Your task to perform on an android device: turn off location history Image 0: 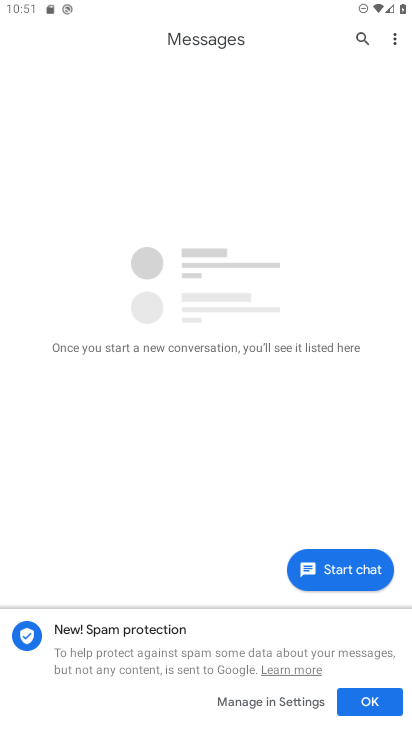
Step 0: press home button
Your task to perform on an android device: turn off location history Image 1: 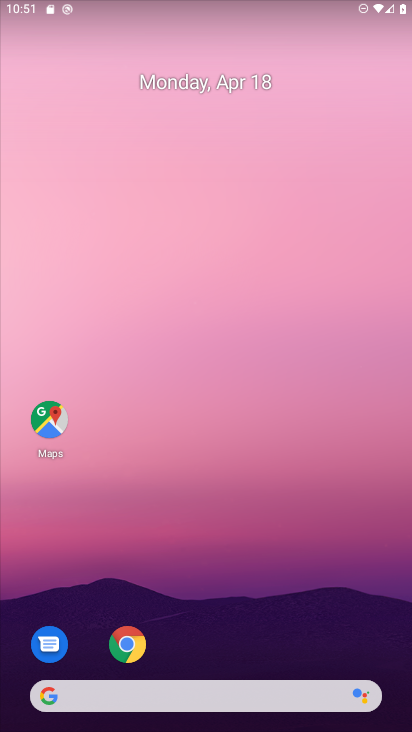
Step 1: drag from (198, 645) to (263, 87)
Your task to perform on an android device: turn off location history Image 2: 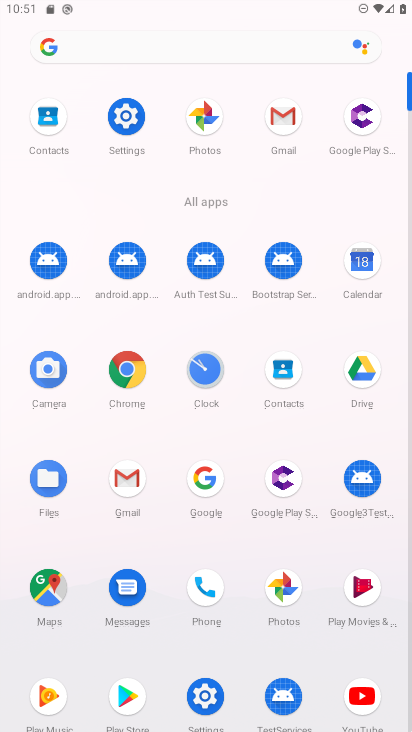
Step 2: click (199, 710)
Your task to perform on an android device: turn off location history Image 3: 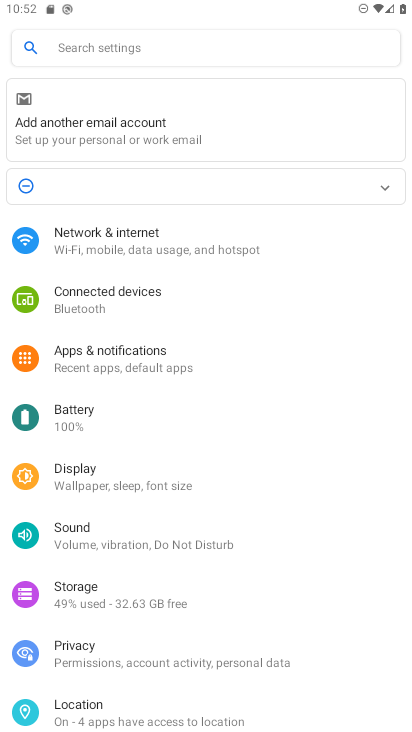
Step 3: click (118, 708)
Your task to perform on an android device: turn off location history Image 4: 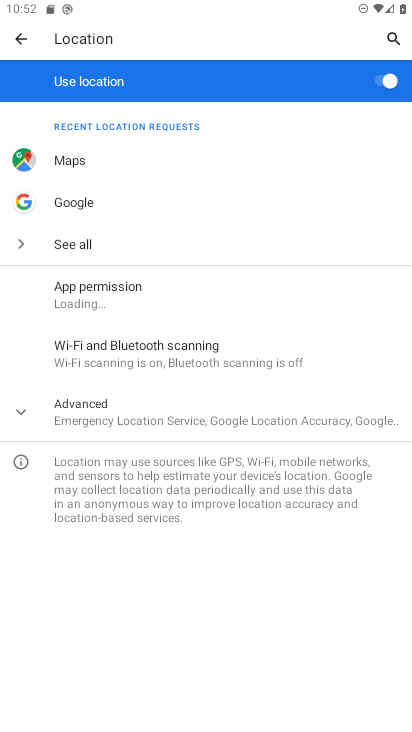
Step 4: click (59, 410)
Your task to perform on an android device: turn off location history Image 5: 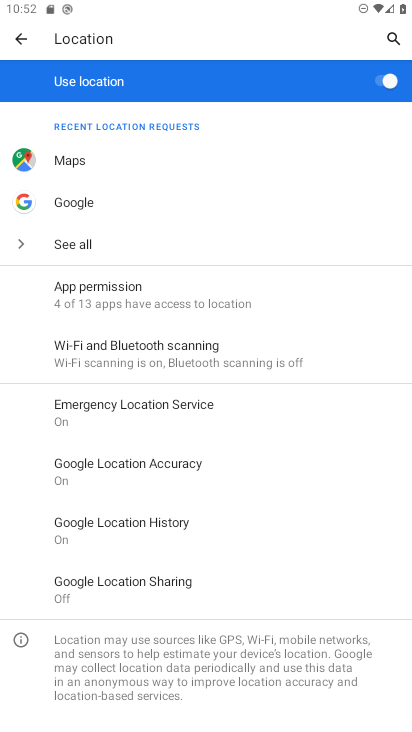
Step 5: click (133, 536)
Your task to perform on an android device: turn off location history Image 6: 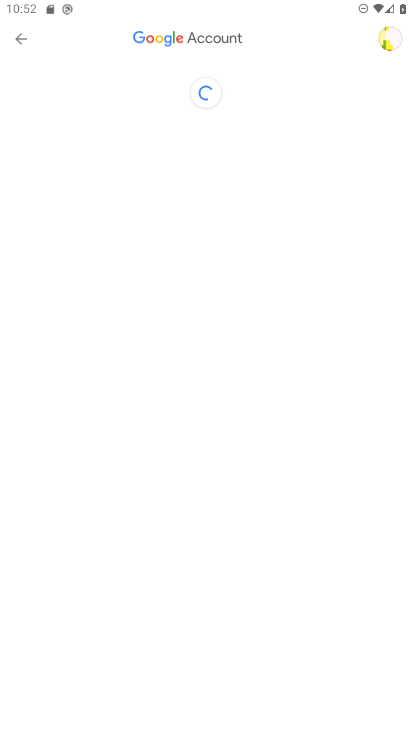
Step 6: click (339, 523)
Your task to perform on an android device: turn off location history Image 7: 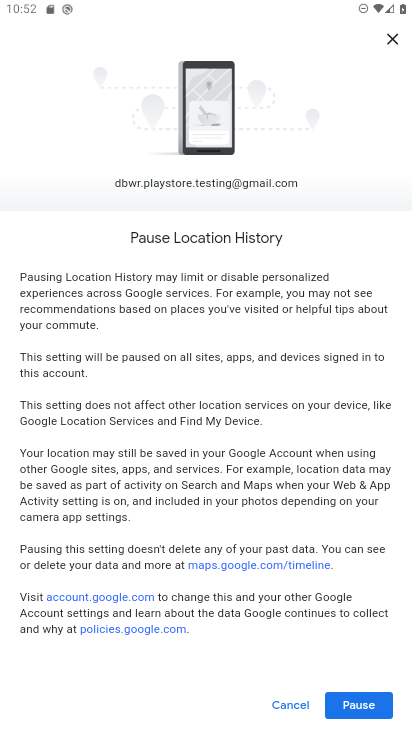
Step 7: click (347, 708)
Your task to perform on an android device: turn off location history Image 8: 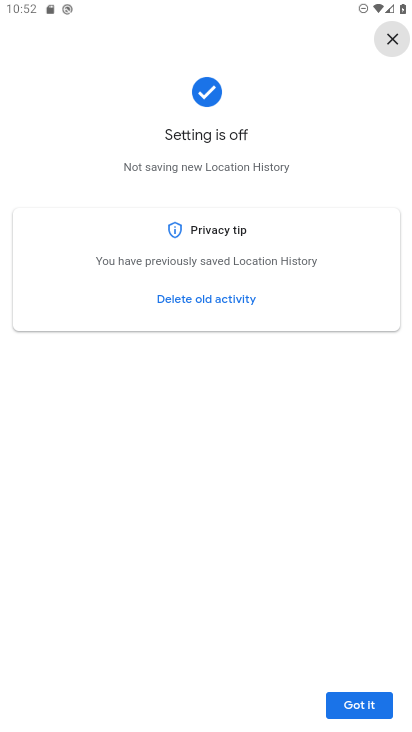
Step 8: click (347, 708)
Your task to perform on an android device: turn off location history Image 9: 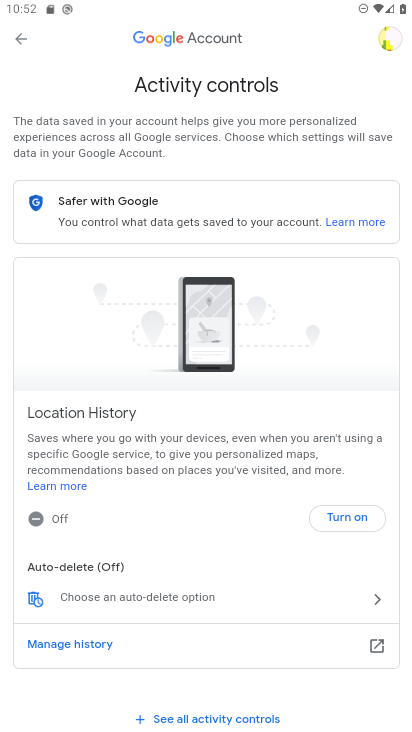
Step 9: task complete